Your task to perform on an android device: turn off priority inbox in the gmail app Image 0: 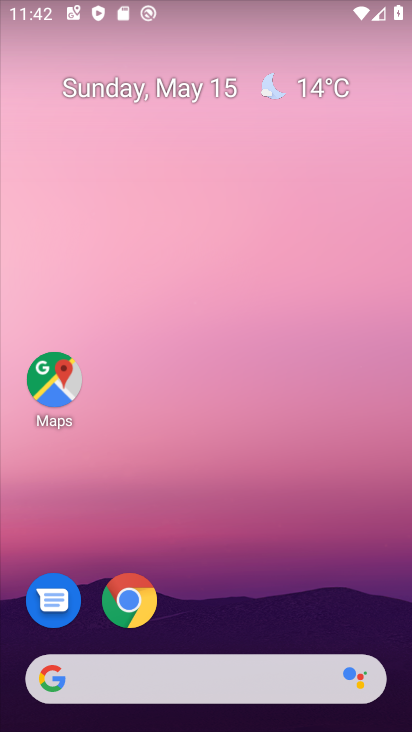
Step 0: drag from (388, 611) to (345, 136)
Your task to perform on an android device: turn off priority inbox in the gmail app Image 1: 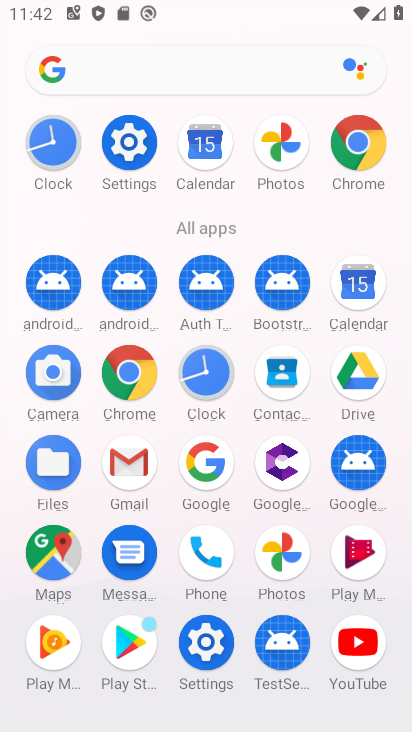
Step 1: click (130, 460)
Your task to perform on an android device: turn off priority inbox in the gmail app Image 2: 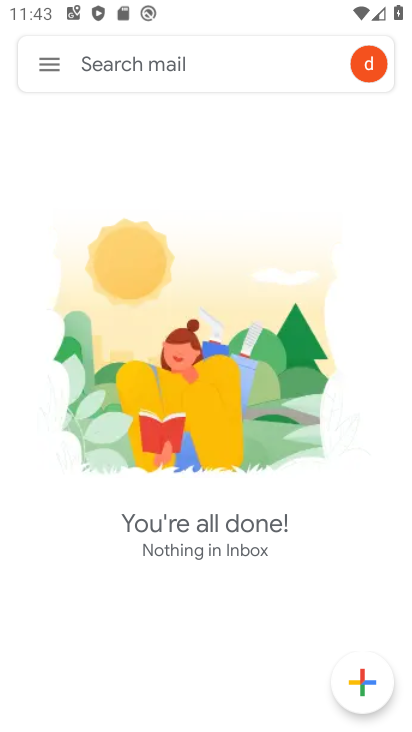
Step 2: click (49, 66)
Your task to perform on an android device: turn off priority inbox in the gmail app Image 3: 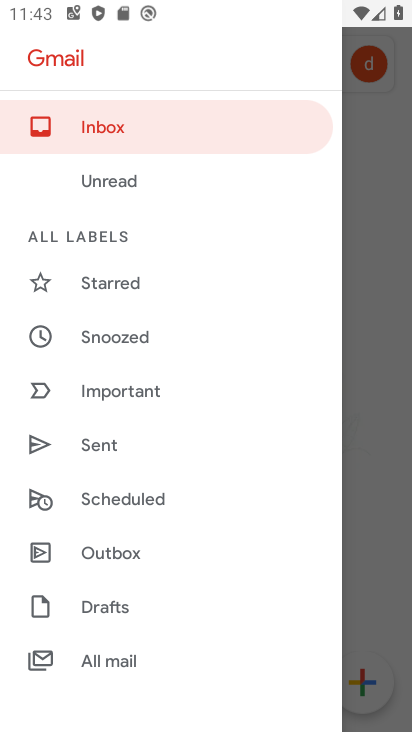
Step 3: drag from (196, 634) to (204, 220)
Your task to perform on an android device: turn off priority inbox in the gmail app Image 4: 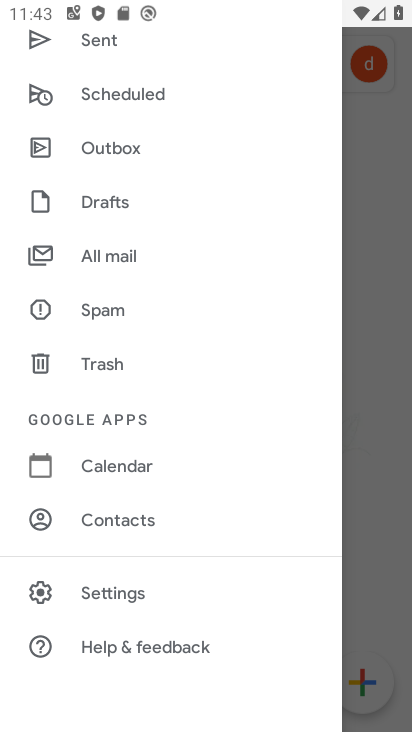
Step 4: click (112, 586)
Your task to perform on an android device: turn off priority inbox in the gmail app Image 5: 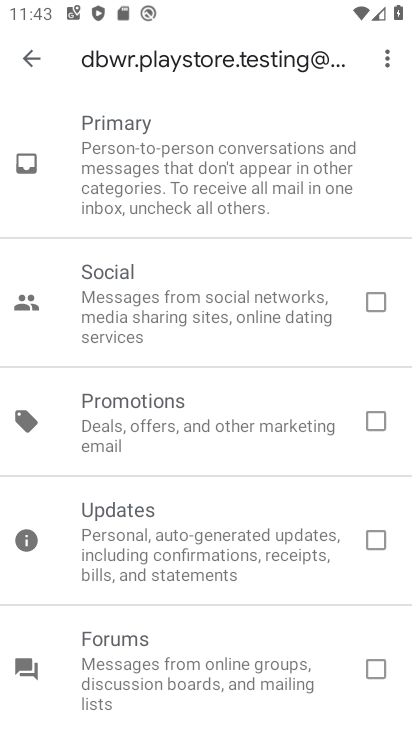
Step 5: press back button
Your task to perform on an android device: turn off priority inbox in the gmail app Image 6: 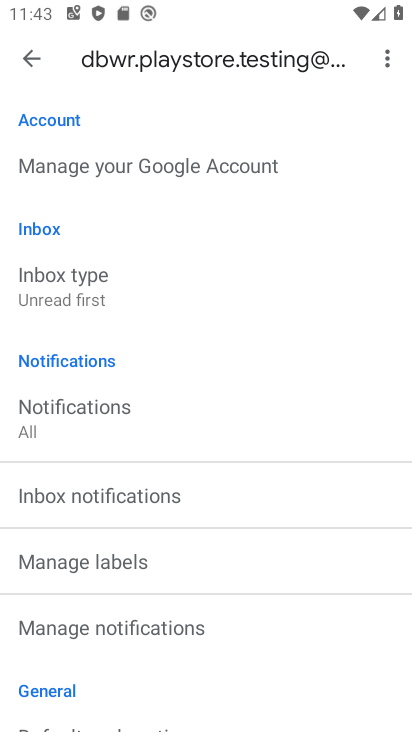
Step 6: click (94, 290)
Your task to perform on an android device: turn off priority inbox in the gmail app Image 7: 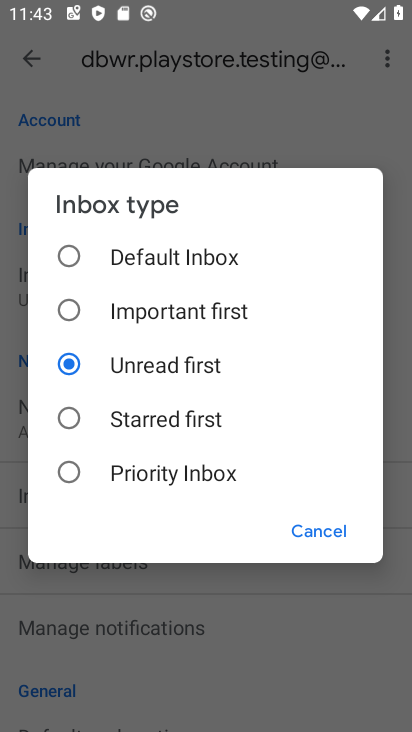
Step 7: task complete